Your task to perform on an android device: turn on the 24-hour format for clock Image 0: 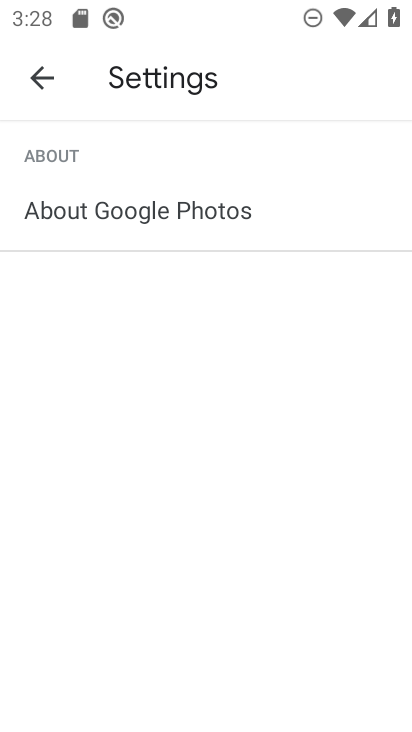
Step 0: press home button
Your task to perform on an android device: turn on the 24-hour format for clock Image 1: 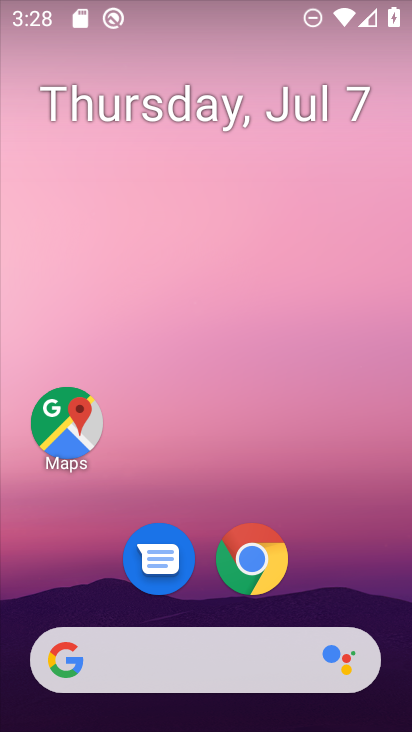
Step 1: drag from (363, 573) to (360, 167)
Your task to perform on an android device: turn on the 24-hour format for clock Image 2: 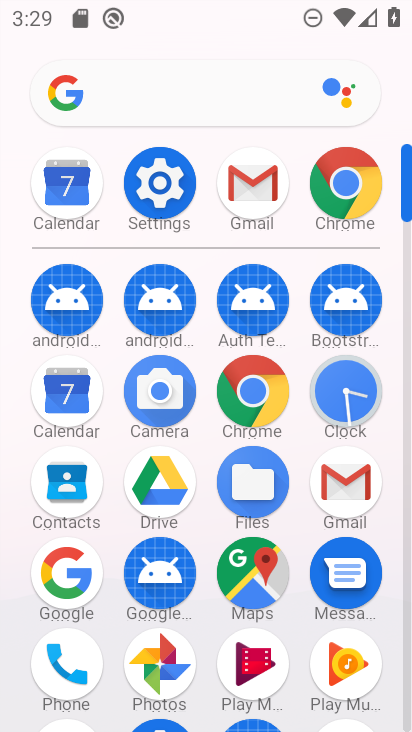
Step 2: click (361, 392)
Your task to perform on an android device: turn on the 24-hour format for clock Image 3: 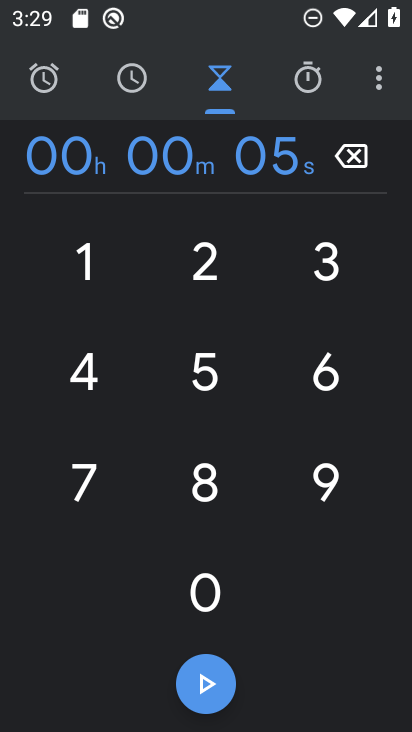
Step 3: click (377, 87)
Your task to perform on an android device: turn on the 24-hour format for clock Image 4: 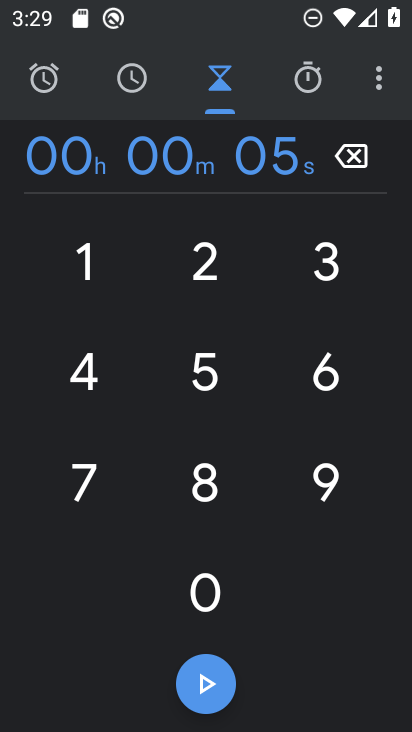
Step 4: click (377, 87)
Your task to perform on an android device: turn on the 24-hour format for clock Image 5: 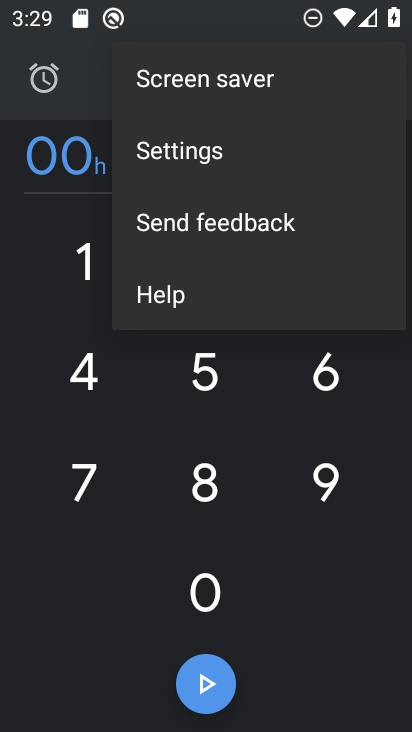
Step 5: click (290, 154)
Your task to perform on an android device: turn on the 24-hour format for clock Image 6: 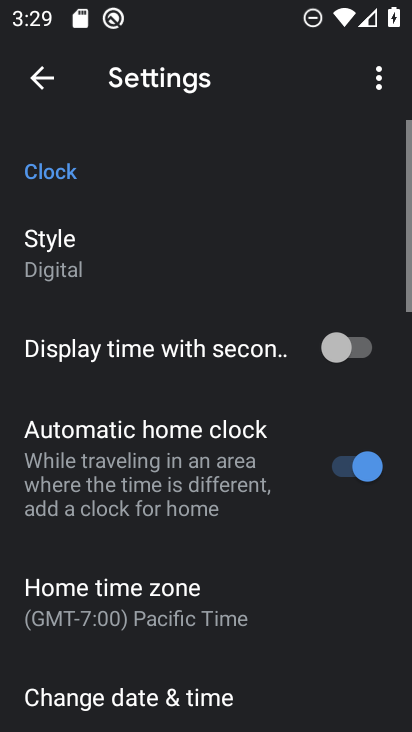
Step 6: drag from (287, 266) to (286, 192)
Your task to perform on an android device: turn on the 24-hour format for clock Image 7: 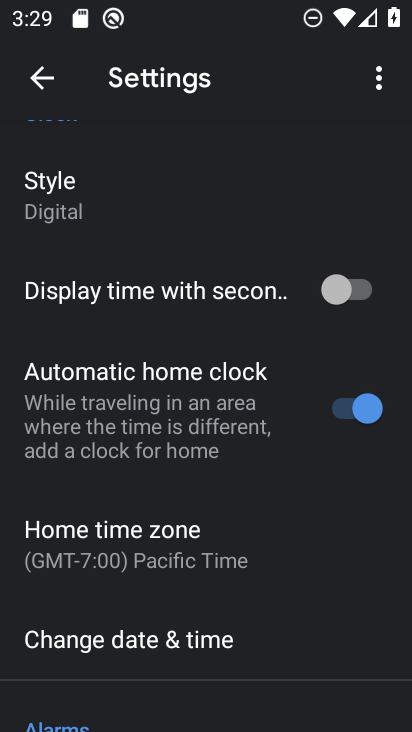
Step 7: drag from (286, 299) to (288, 199)
Your task to perform on an android device: turn on the 24-hour format for clock Image 8: 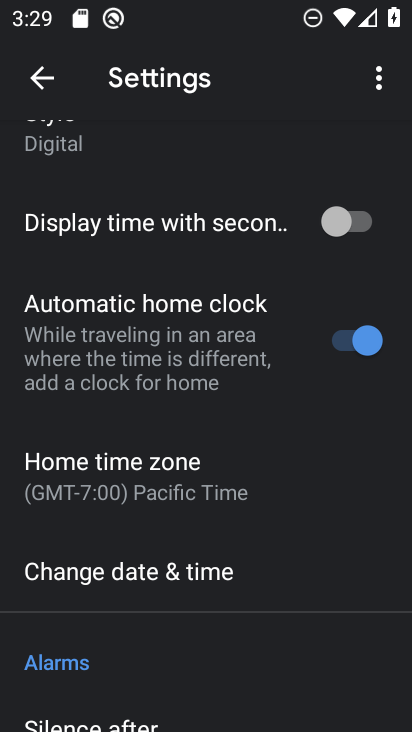
Step 8: drag from (287, 308) to (286, 206)
Your task to perform on an android device: turn on the 24-hour format for clock Image 9: 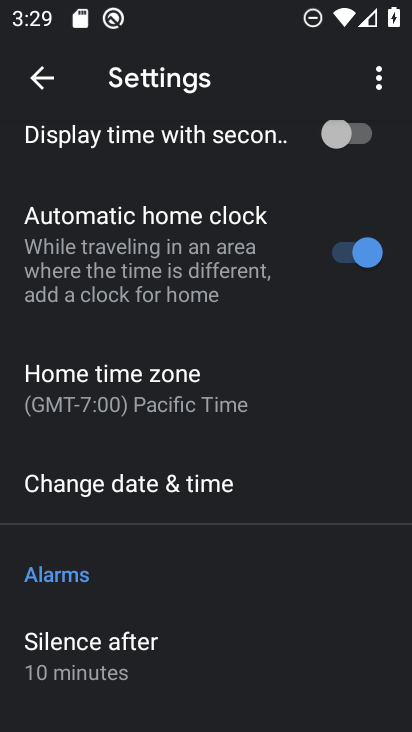
Step 9: drag from (294, 297) to (298, 204)
Your task to perform on an android device: turn on the 24-hour format for clock Image 10: 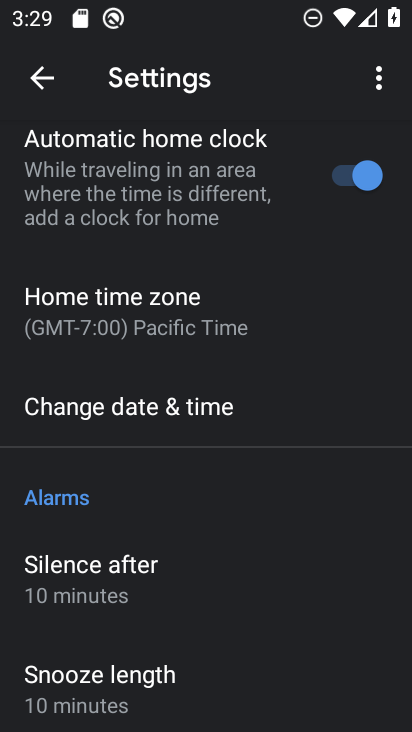
Step 10: drag from (312, 333) to (309, 241)
Your task to perform on an android device: turn on the 24-hour format for clock Image 11: 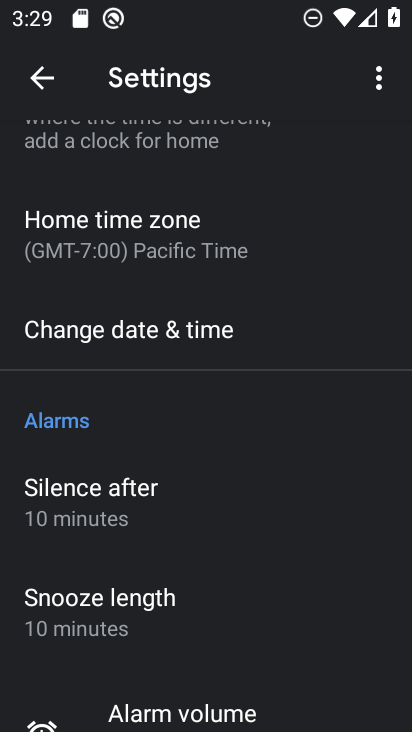
Step 11: drag from (290, 328) to (289, 248)
Your task to perform on an android device: turn on the 24-hour format for clock Image 12: 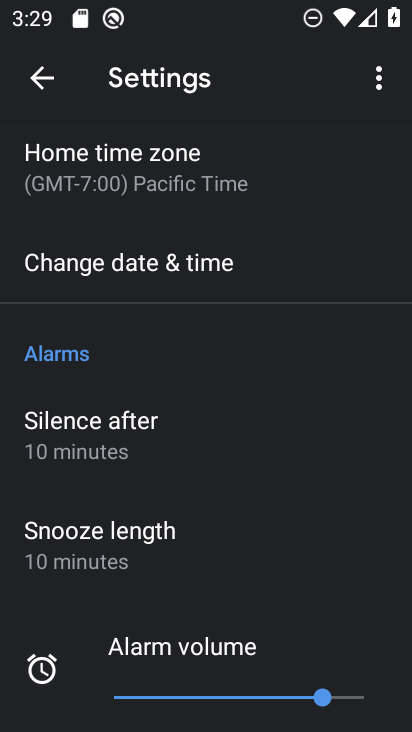
Step 12: drag from (285, 354) to (283, 243)
Your task to perform on an android device: turn on the 24-hour format for clock Image 13: 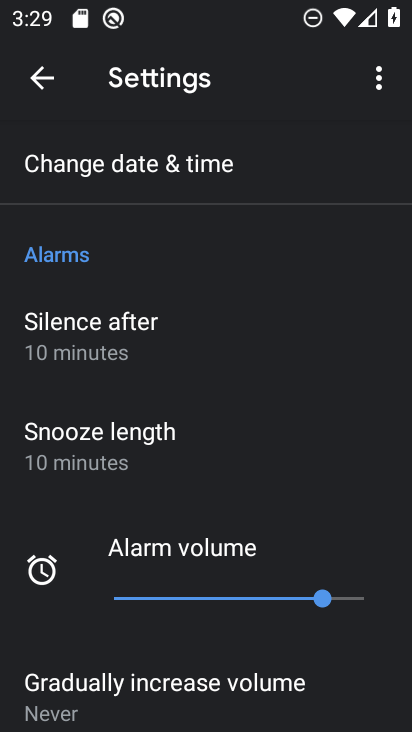
Step 13: click (263, 196)
Your task to perform on an android device: turn on the 24-hour format for clock Image 14: 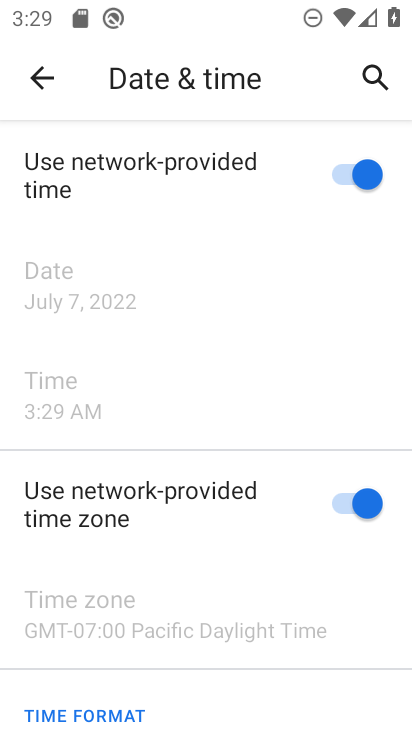
Step 14: drag from (297, 398) to (302, 282)
Your task to perform on an android device: turn on the 24-hour format for clock Image 15: 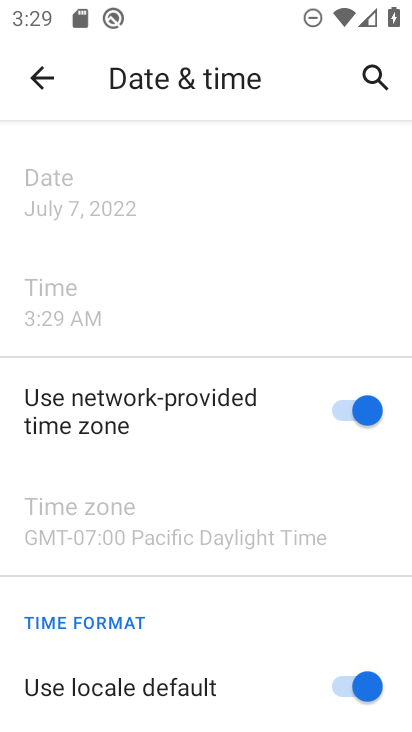
Step 15: drag from (300, 404) to (303, 308)
Your task to perform on an android device: turn on the 24-hour format for clock Image 16: 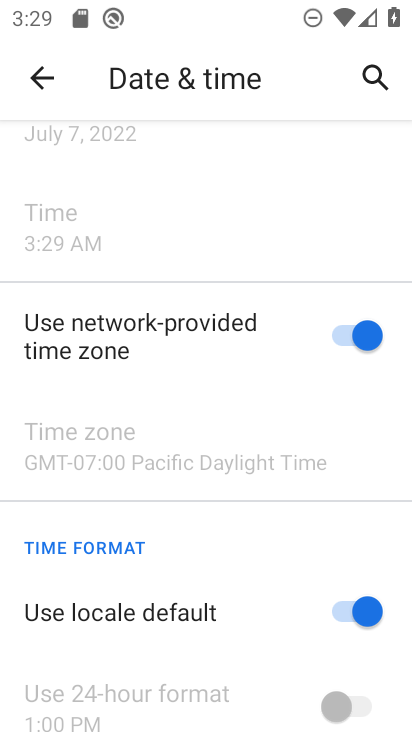
Step 16: drag from (296, 388) to (295, 290)
Your task to perform on an android device: turn on the 24-hour format for clock Image 17: 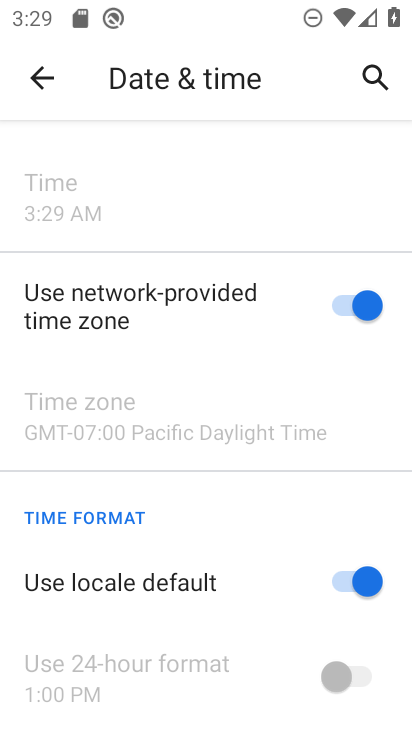
Step 17: drag from (284, 436) to (285, 328)
Your task to perform on an android device: turn on the 24-hour format for clock Image 18: 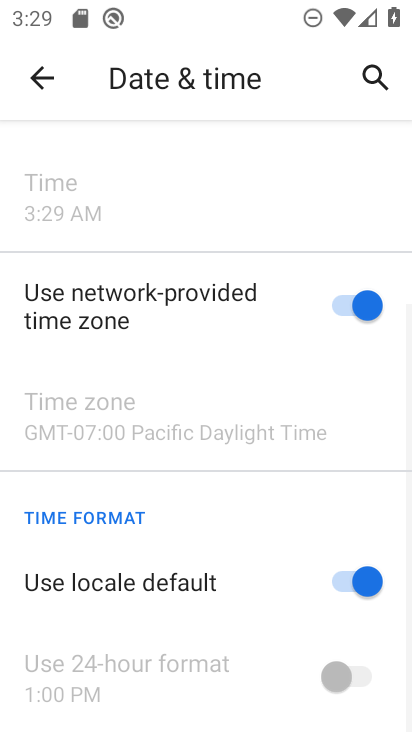
Step 18: click (340, 574)
Your task to perform on an android device: turn on the 24-hour format for clock Image 19: 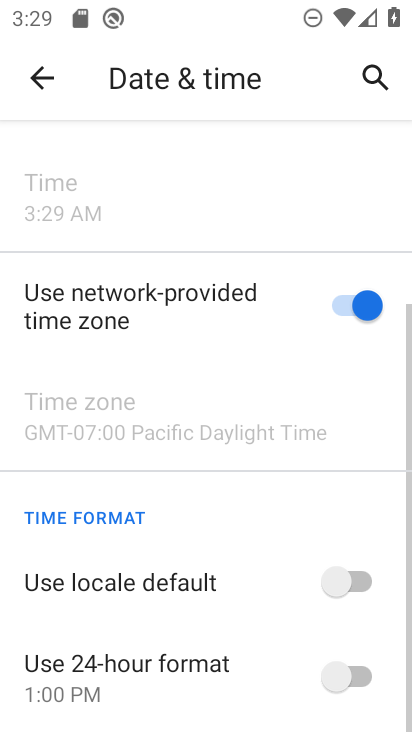
Step 19: click (325, 672)
Your task to perform on an android device: turn on the 24-hour format for clock Image 20: 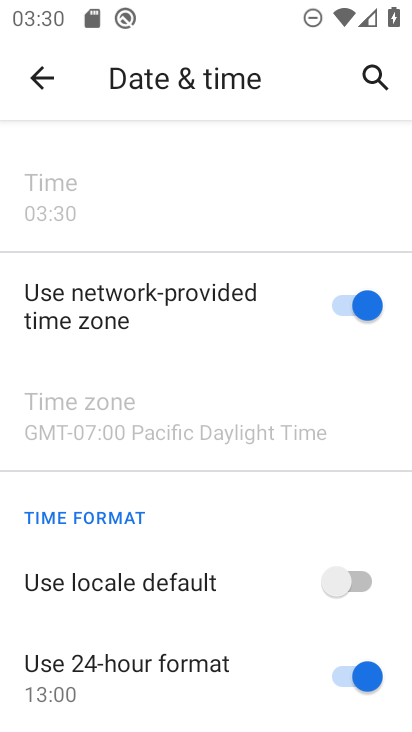
Step 20: task complete